Your task to perform on an android device: Search for usb-a on amazon, select the first entry, add it to the cart, then select checkout. Image 0: 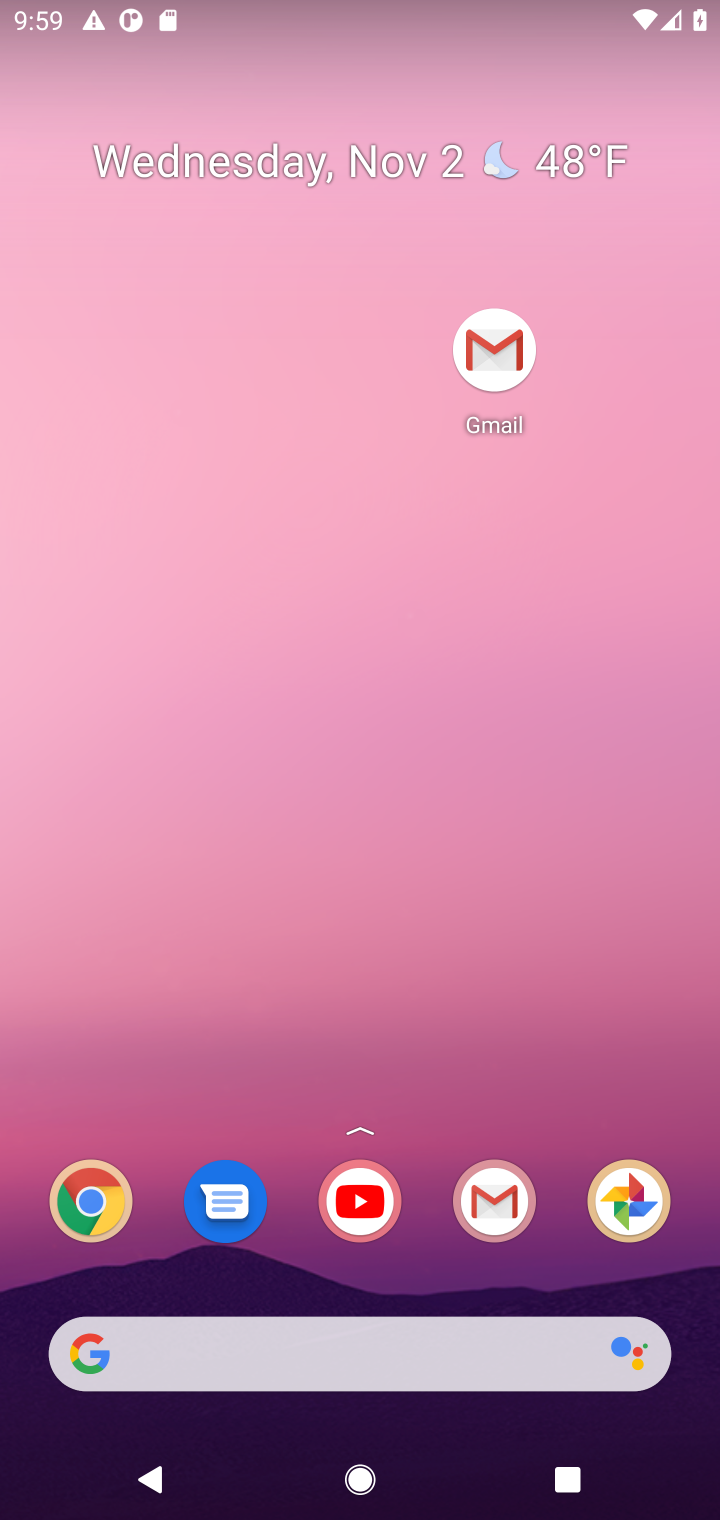
Step 0: drag from (402, 1294) to (284, 133)
Your task to perform on an android device: Search for usb-a on amazon, select the first entry, add it to the cart, then select checkout. Image 1: 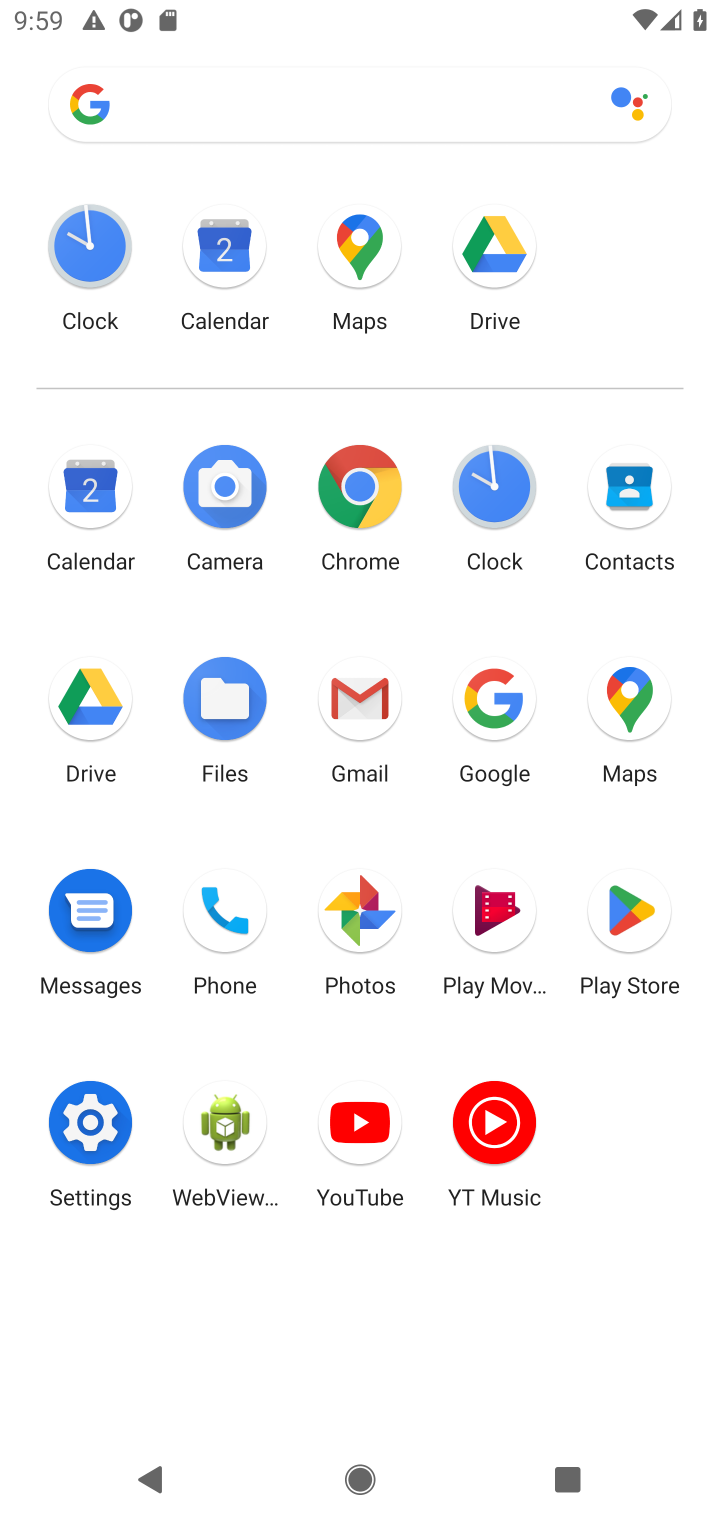
Step 1: click (366, 472)
Your task to perform on an android device: Search for usb-a on amazon, select the first entry, add it to the cart, then select checkout. Image 2: 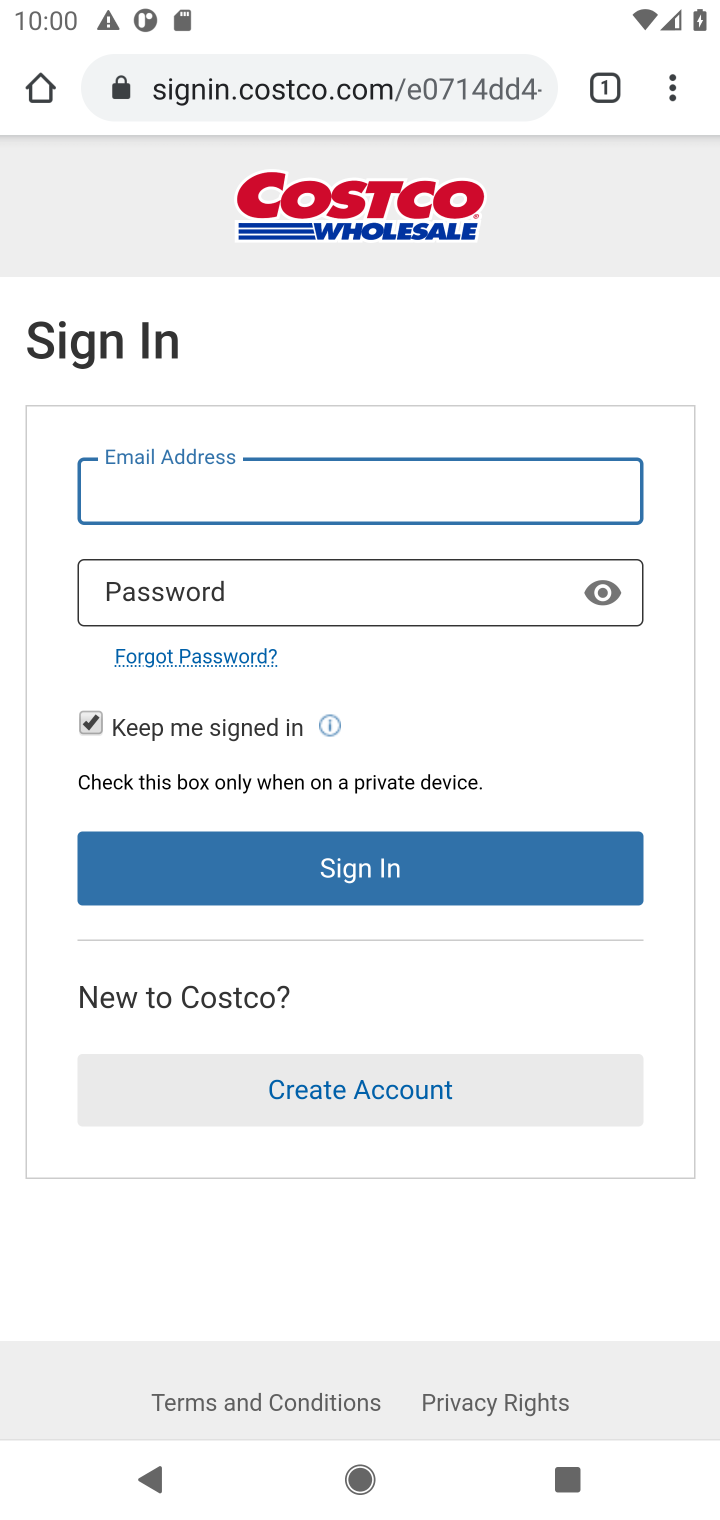
Step 2: click (425, 77)
Your task to perform on an android device: Search for usb-a on amazon, select the first entry, add it to the cart, then select checkout. Image 3: 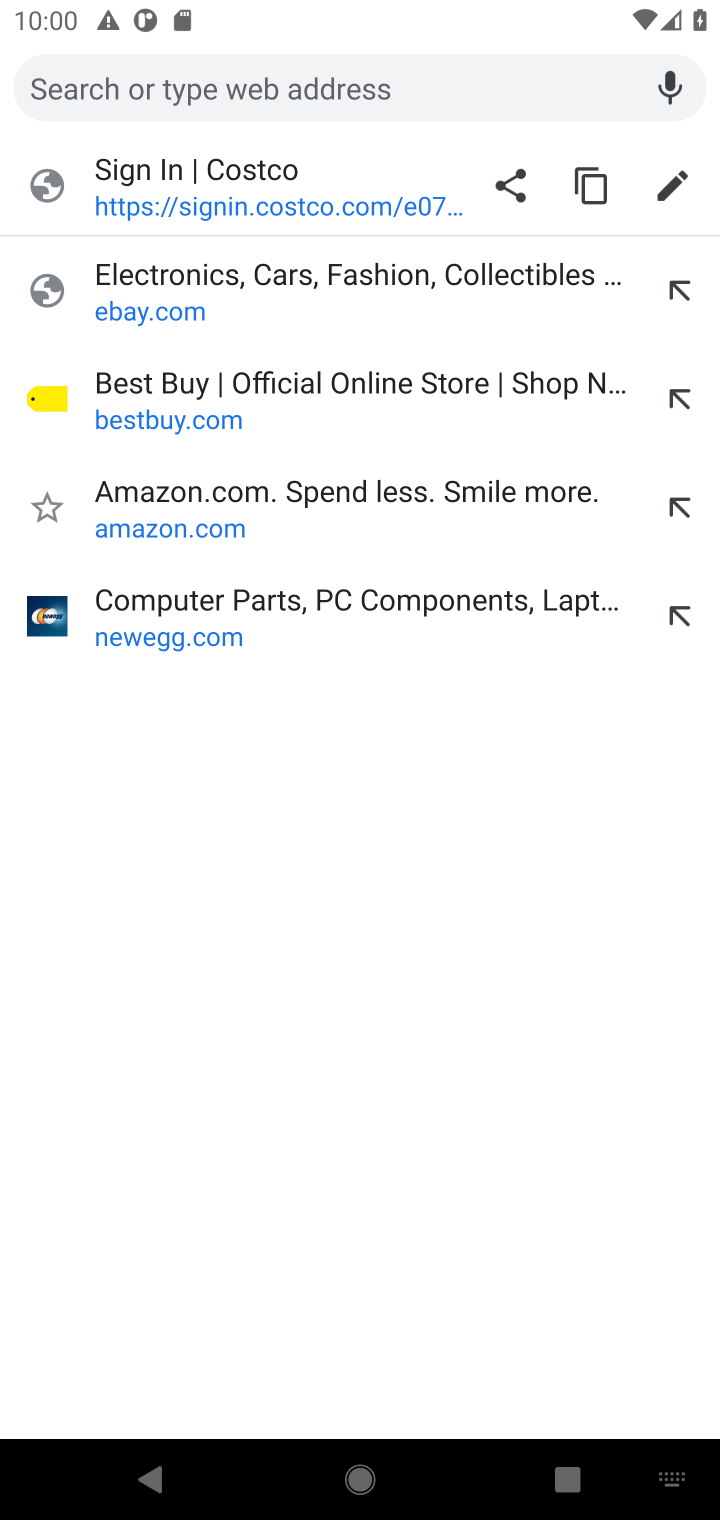
Step 3: type "amazon.com"
Your task to perform on an android device: Search for usb-a on amazon, select the first entry, add it to the cart, then select checkout. Image 4: 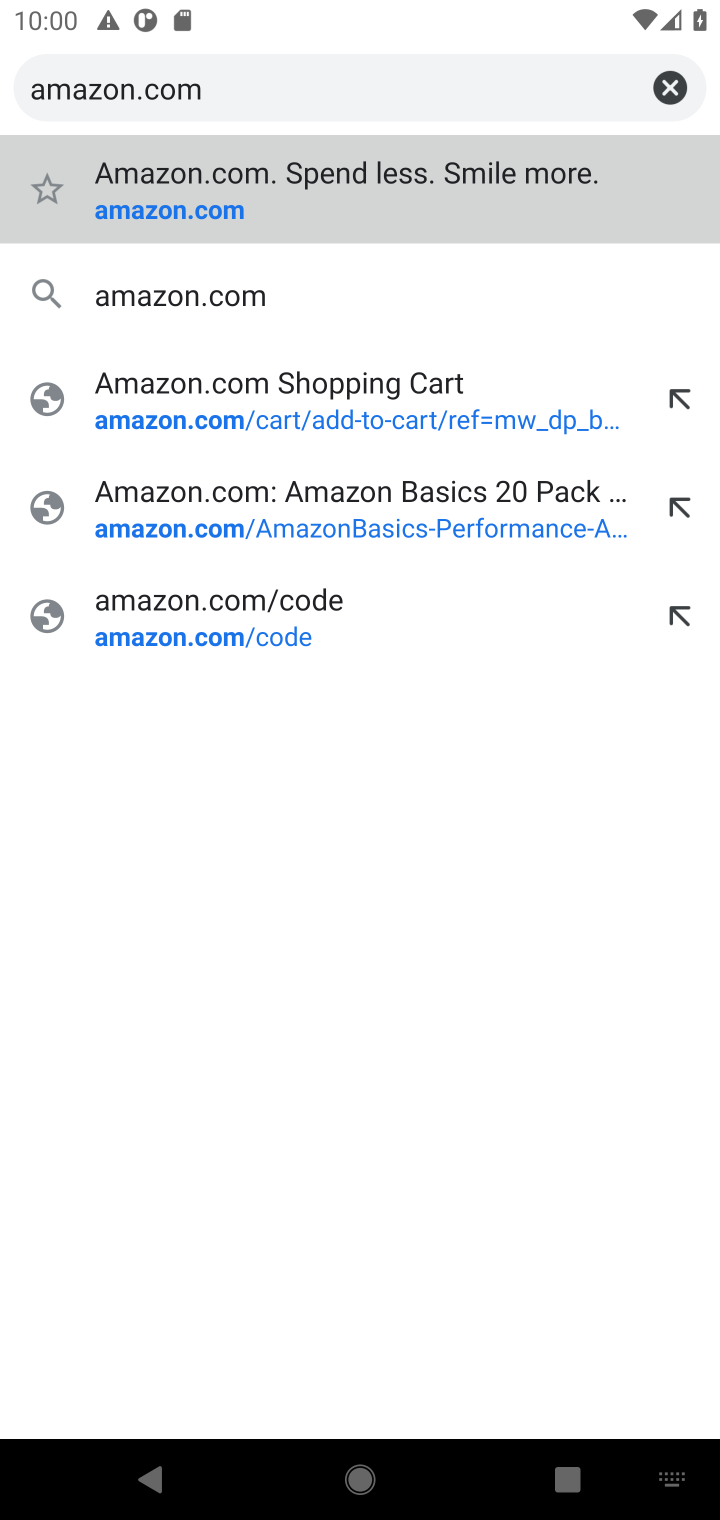
Step 4: press enter
Your task to perform on an android device: Search for usb-a on amazon, select the first entry, add it to the cart, then select checkout. Image 5: 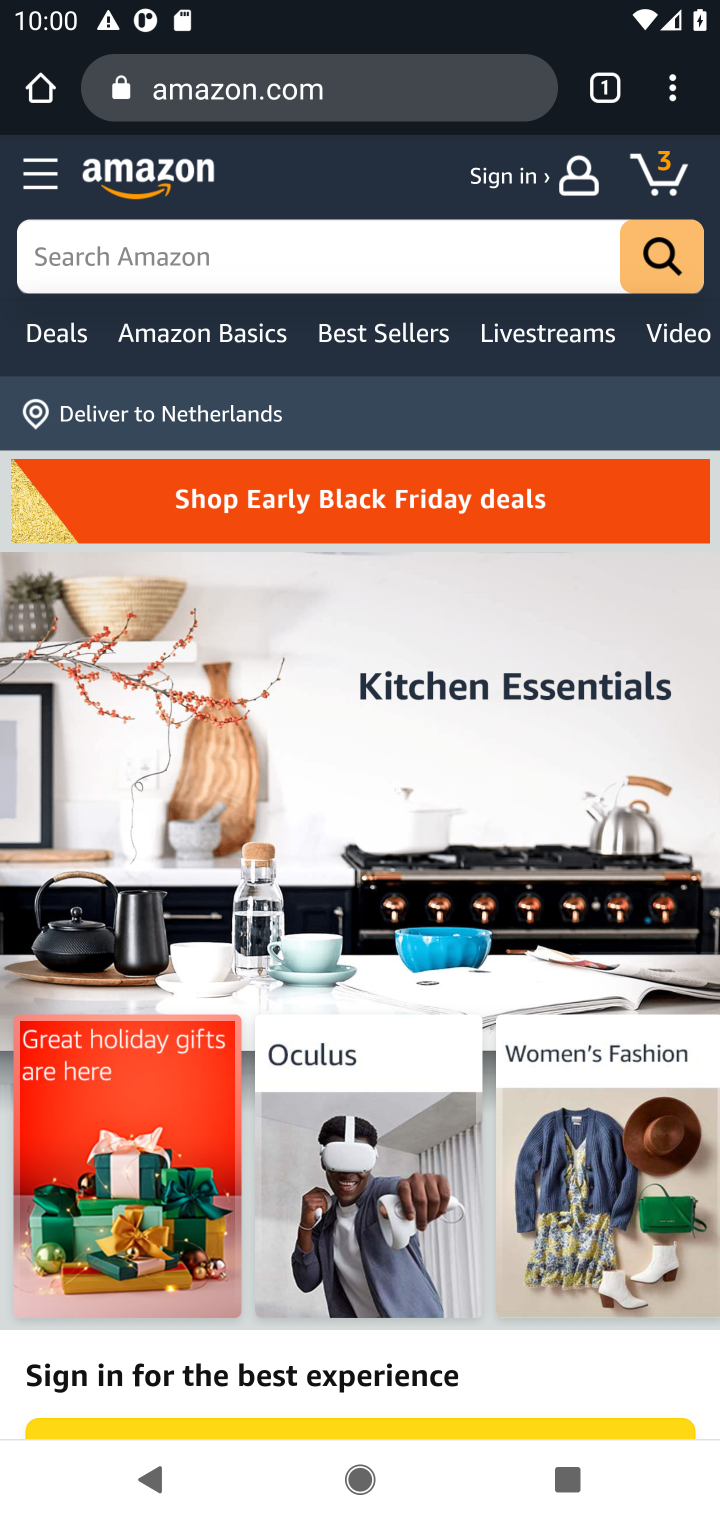
Step 5: click (334, 256)
Your task to perform on an android device: Search for usb-a on amazon, select the first entry, add it to the cart, then select checkout. Image 6: 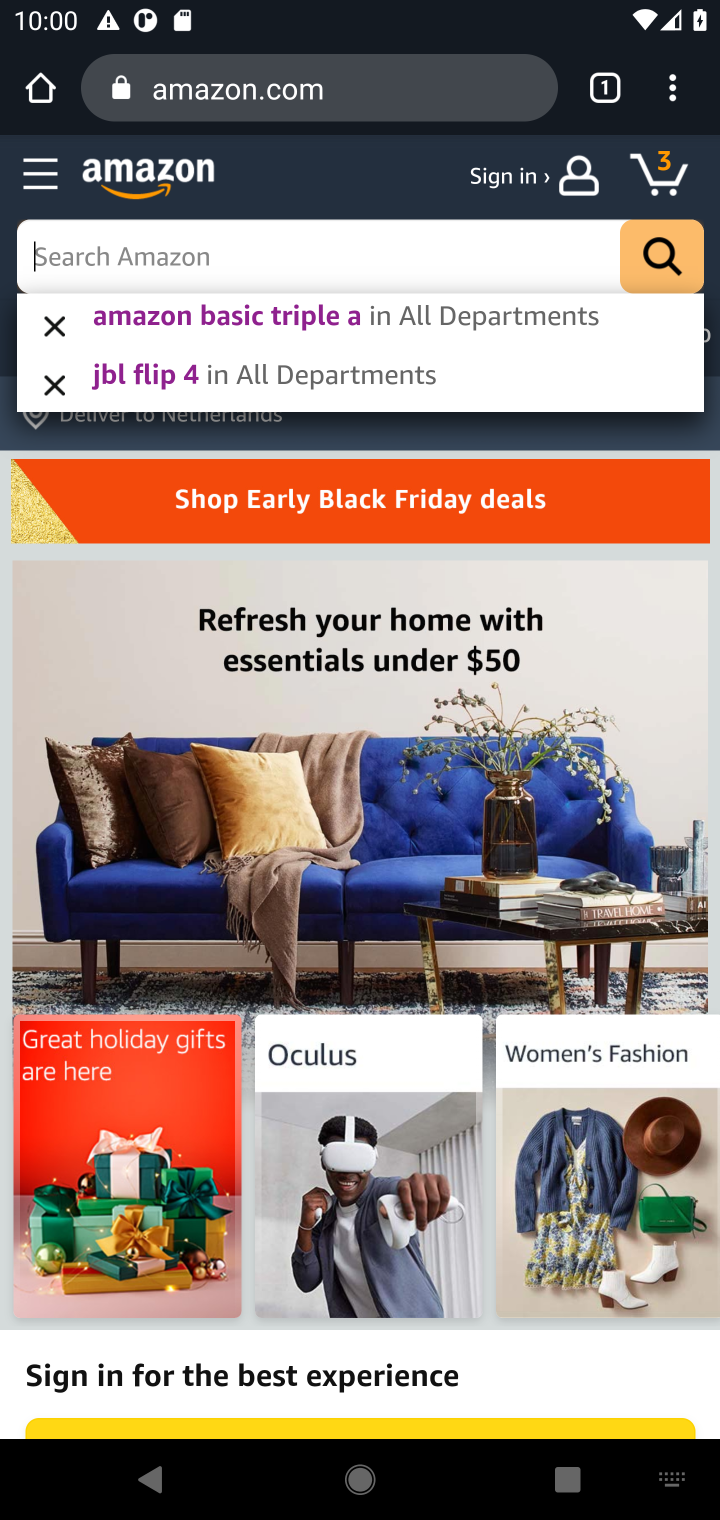
Step 6: type "usb-a"
Your task to perform on an android device: Search for usb-a on amazon, select the first entry, add it to the cart, then select checkout. Image 7: 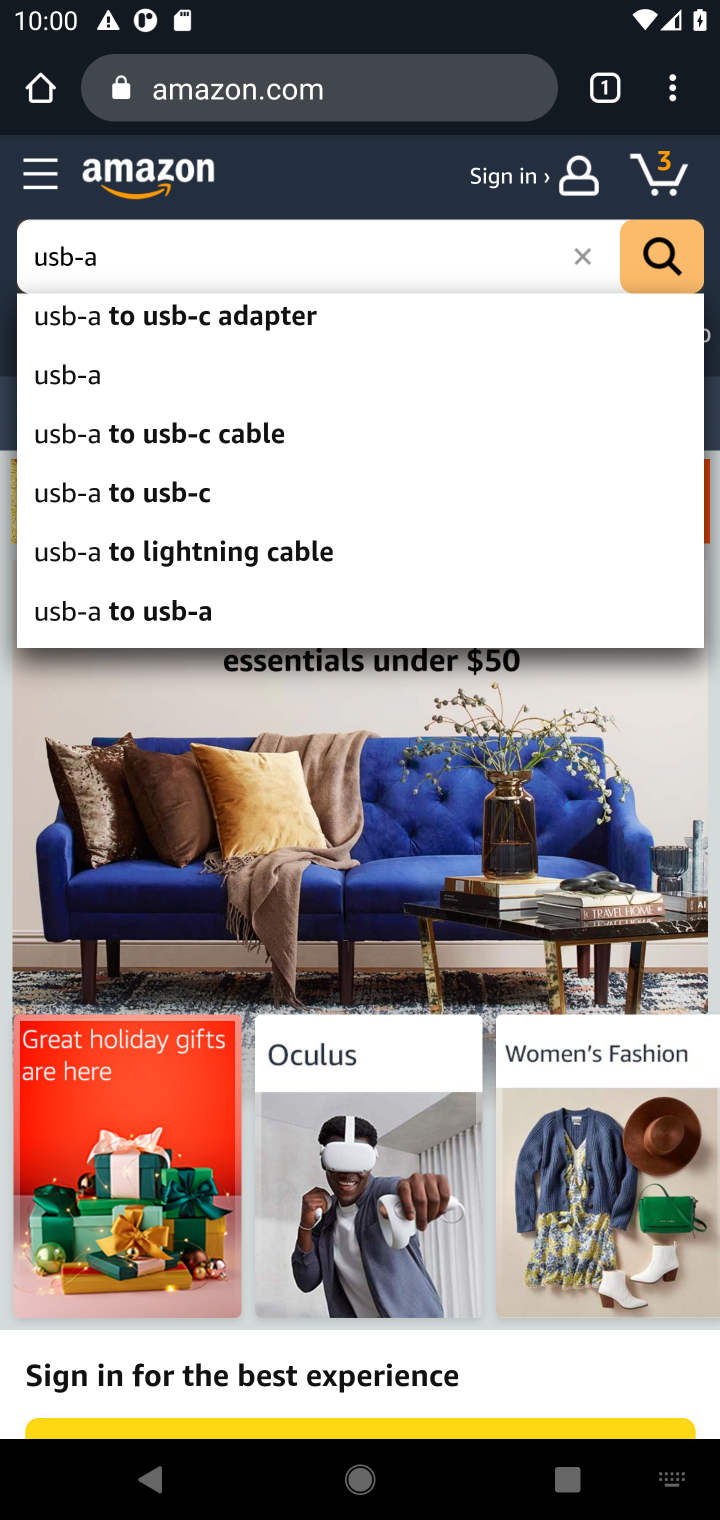
Step 7: click (637, 262)
Your task to perform on an android device: Search for usb-a on amazon, select the first entry, add it to the cart, then select checkout. Image 8: 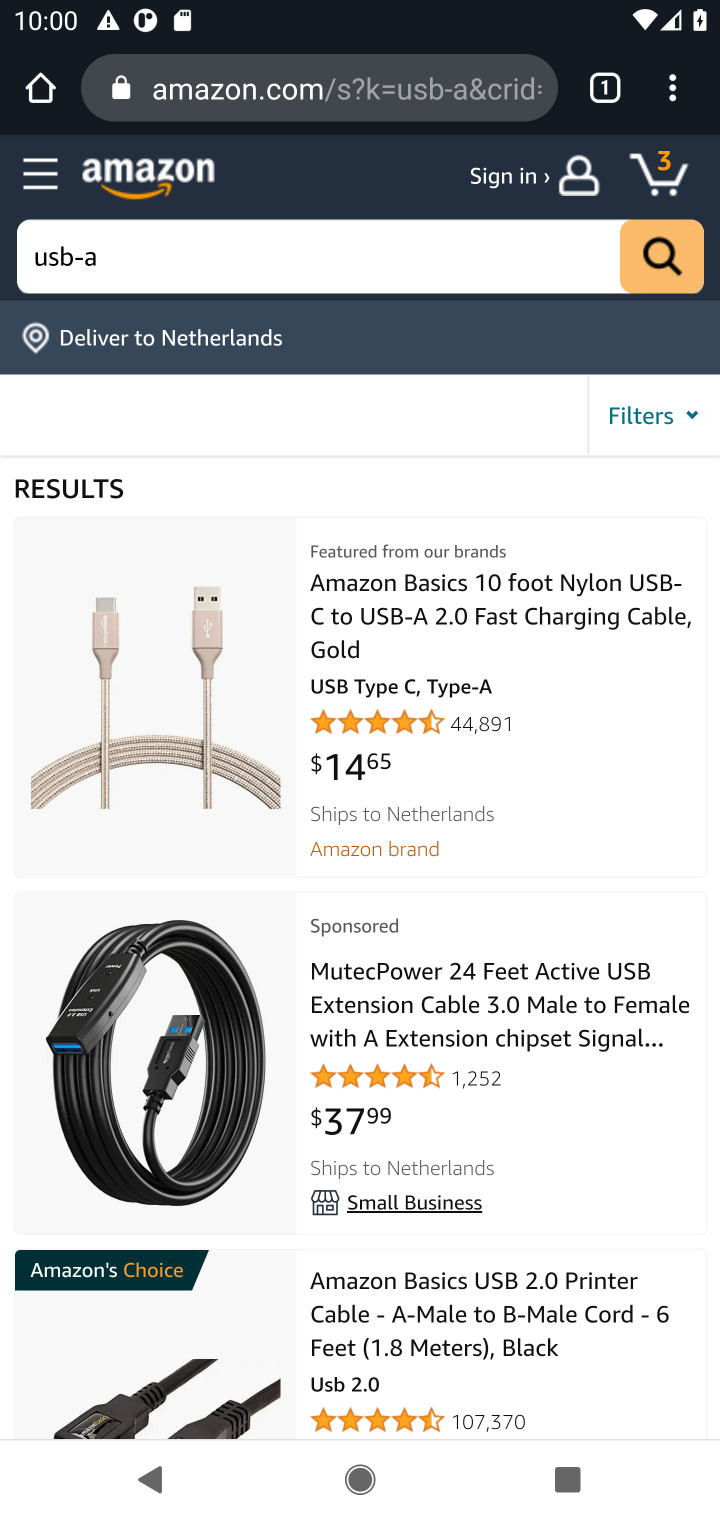
Step 8: drag from (389, 1257) to (401, 507)
Your task to perform on an android device: Search for usb-a on amazon, select the first entry, add it to the cart, then select checkout. Image 9: 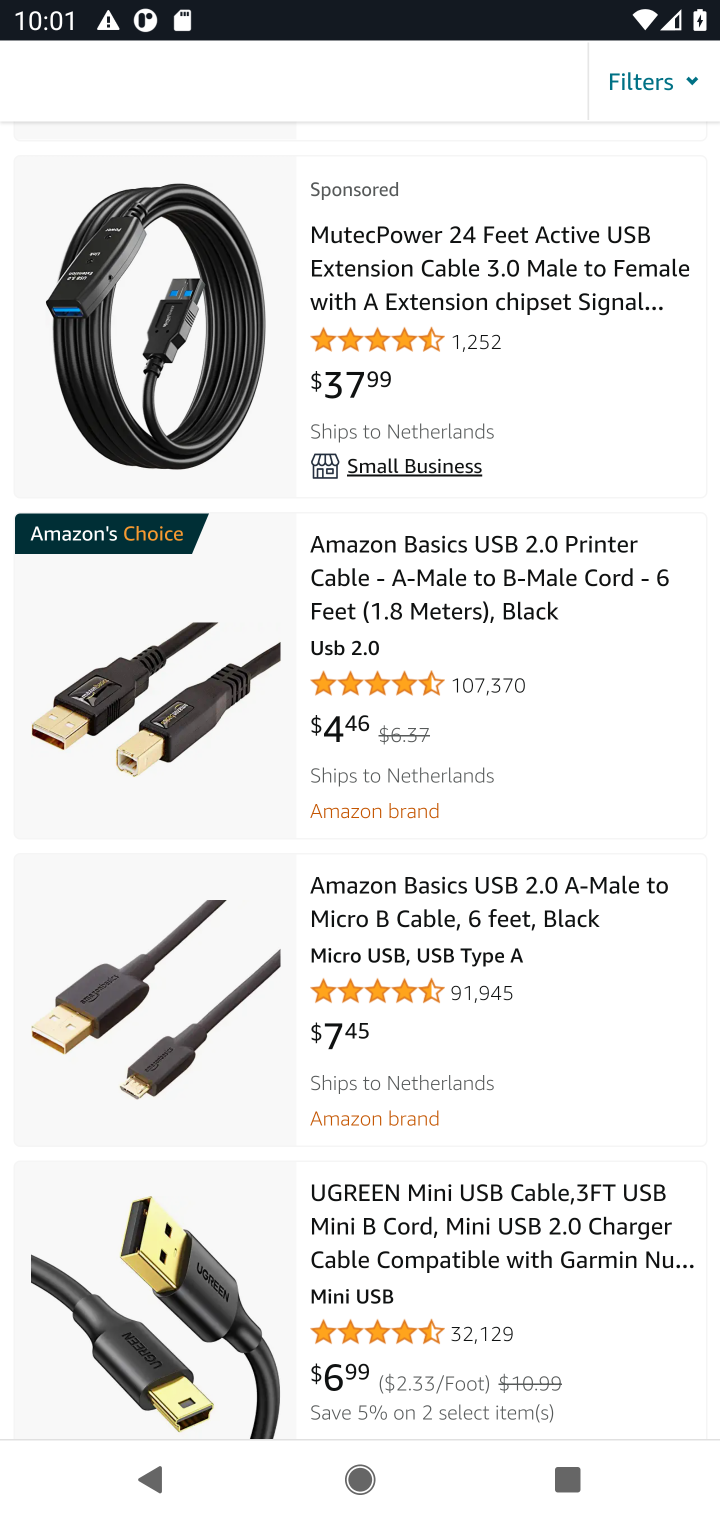
Step 9: click (566, 601)
Your task to perform on an android device: Search for usb-a on amazon, select the first entry, add it to the cart, then select checkout. Image 10: 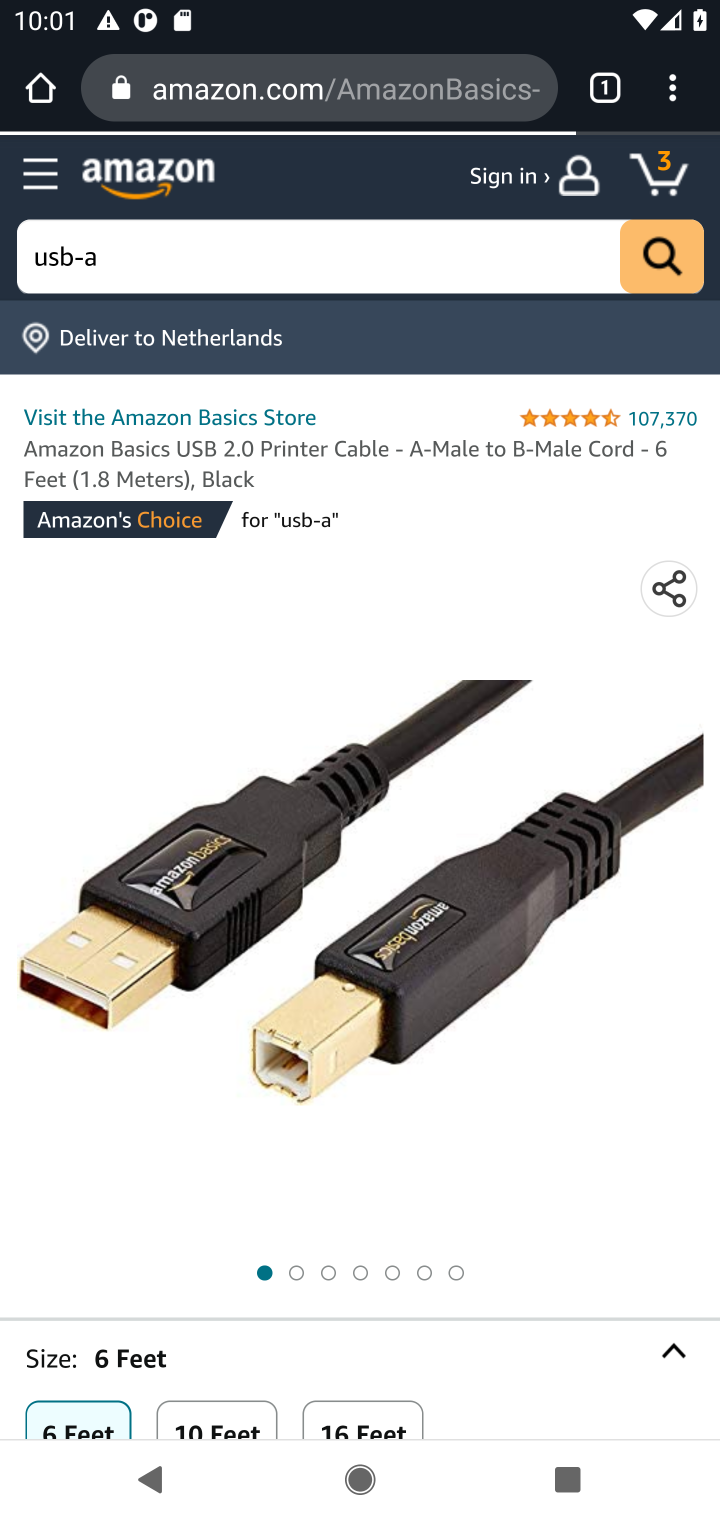
Step 10: drag from (470, 1175) to (556, 202)
Your task to perform on an android device: Search for usb-a on amazon, select the first entry, add it to the cart, then select checkout. Image 11: 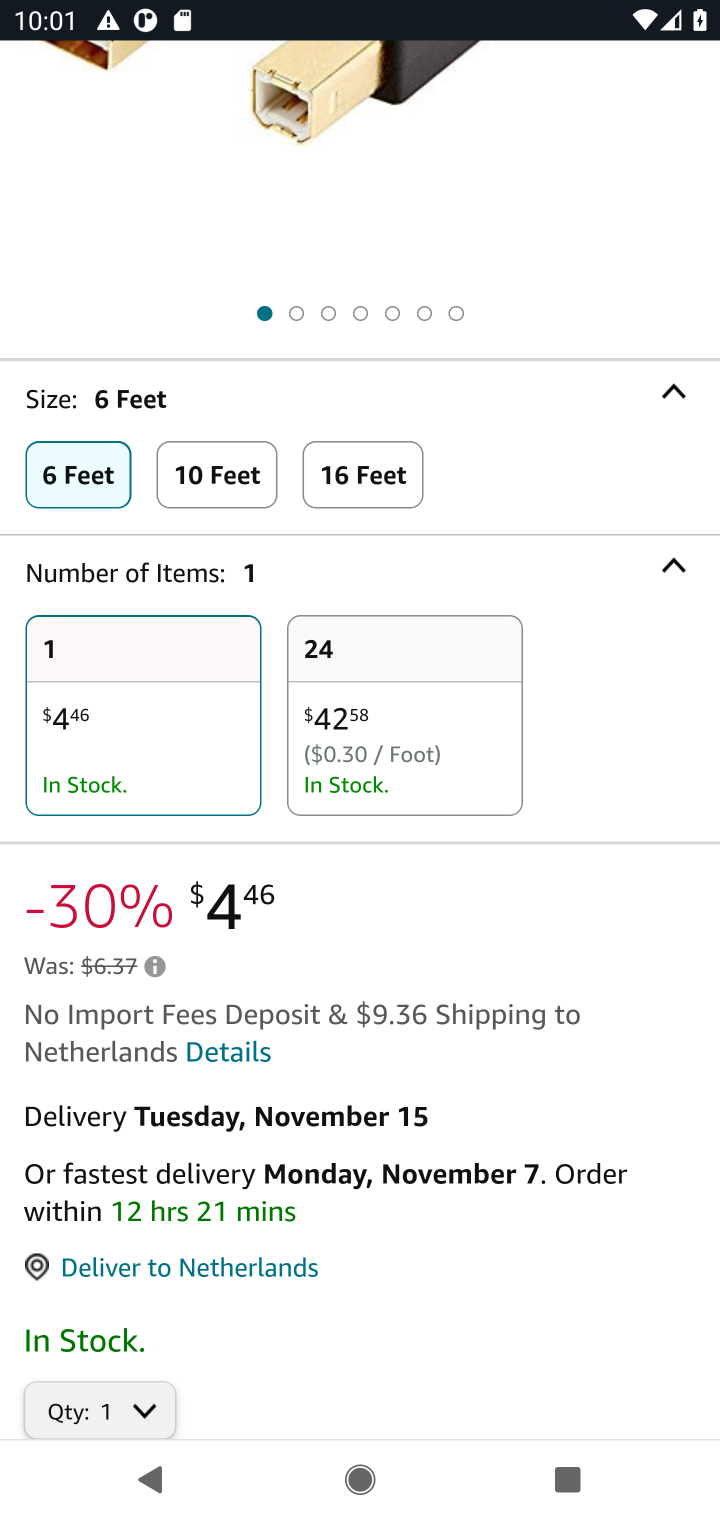
Step 11: drag from (542, 1203) to (541, 304)
Your task to perform on an android device: Search for usb-a on amazon, select the first entry, add it to the cart, then select checkout. Image 12: 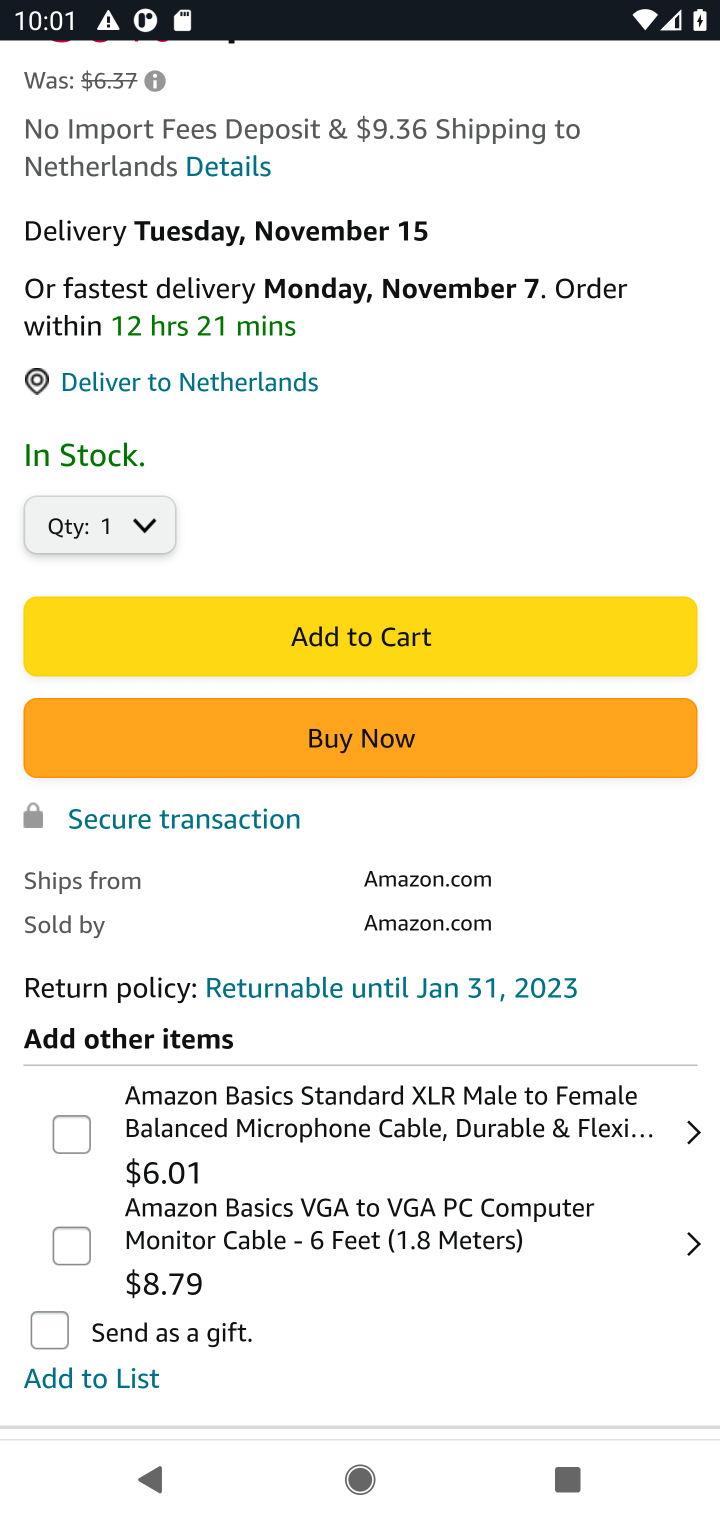
Step 12: click (370, 630)
Your task to perform on an android device: Search for usb-a on amazon, select the first entry, add it to the cart, then select checkout. Image 13: 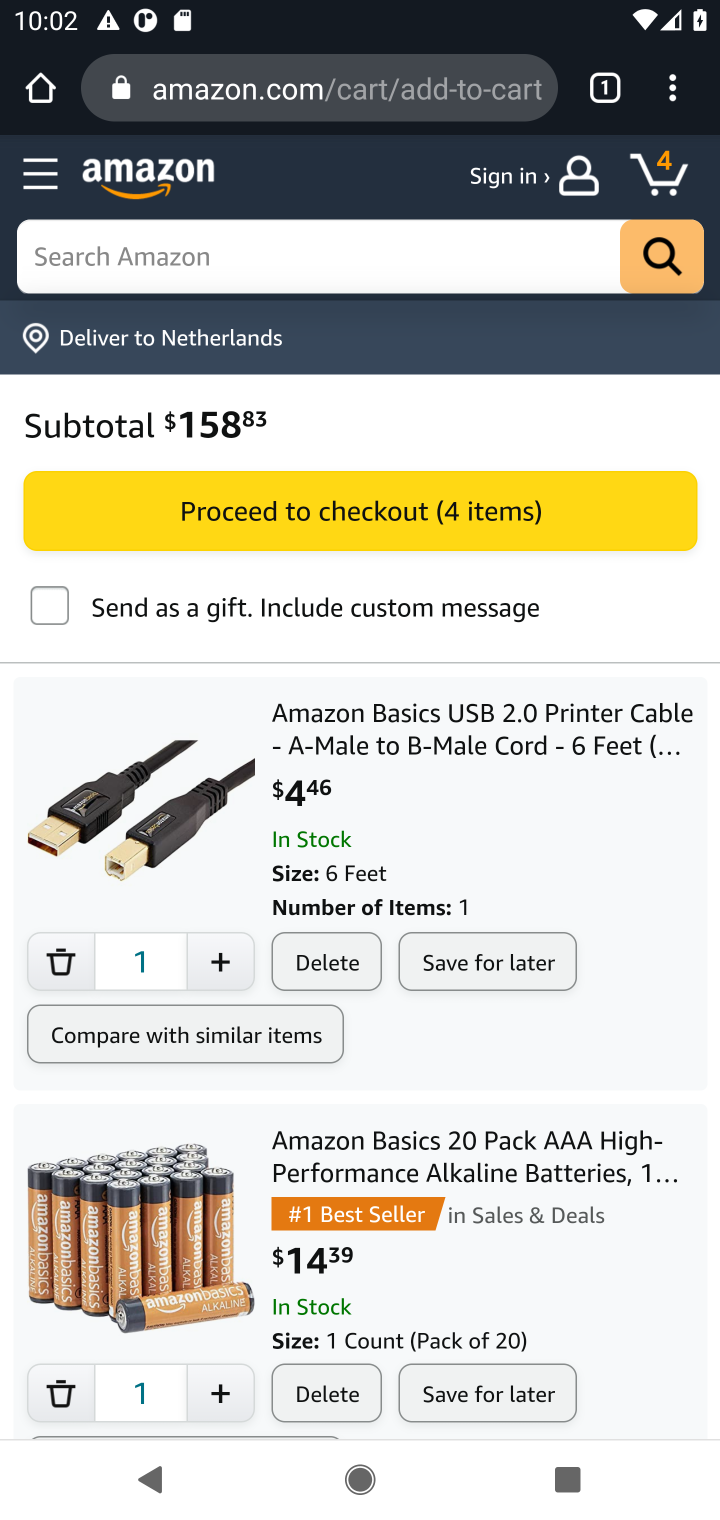
Step 13: click (406, 507)
Your task to perform on an android device: Search for usb-a on amazon, select the first entry, add it to the cart, then select checkout. Image 14: 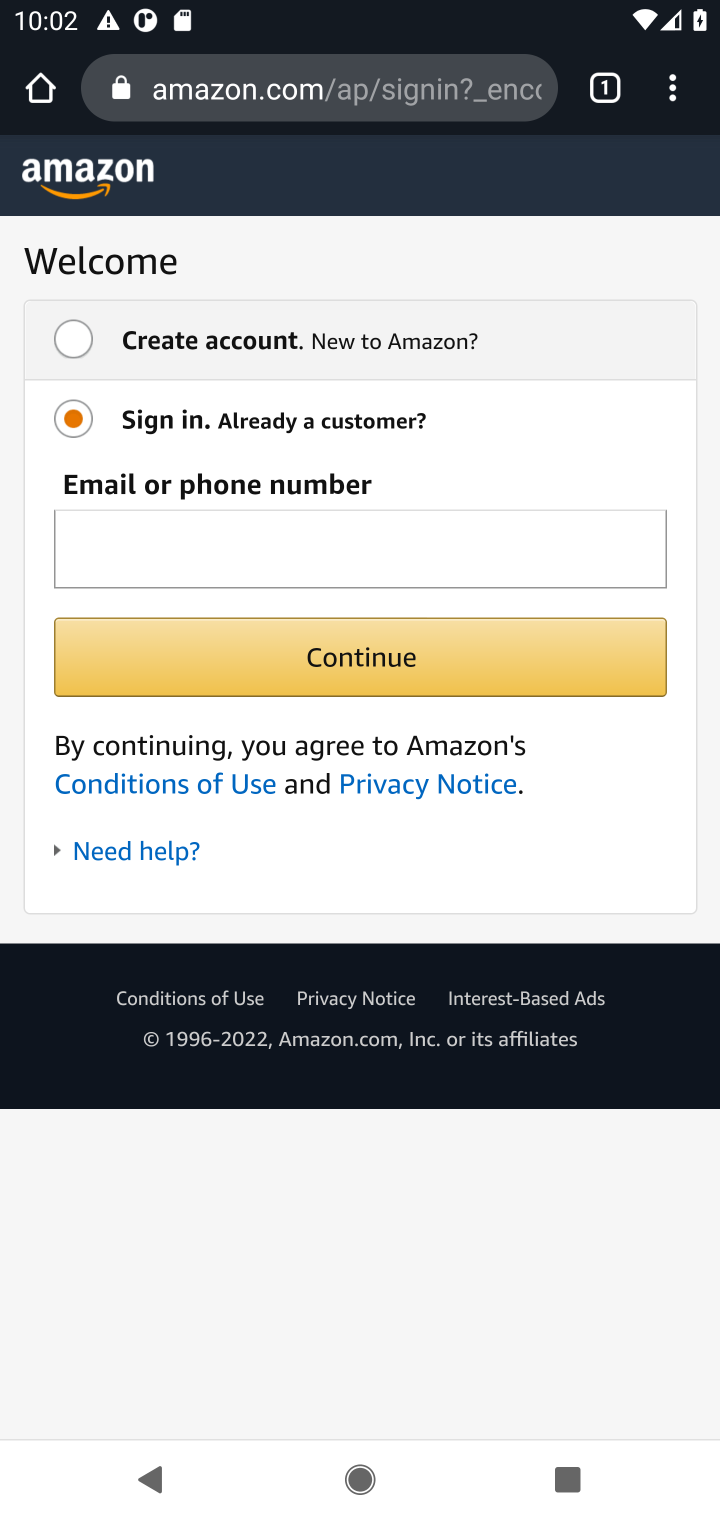
Step 14: task complete